Your task to perform on an android device: turn off notifications settings in the gmail app Image 0: 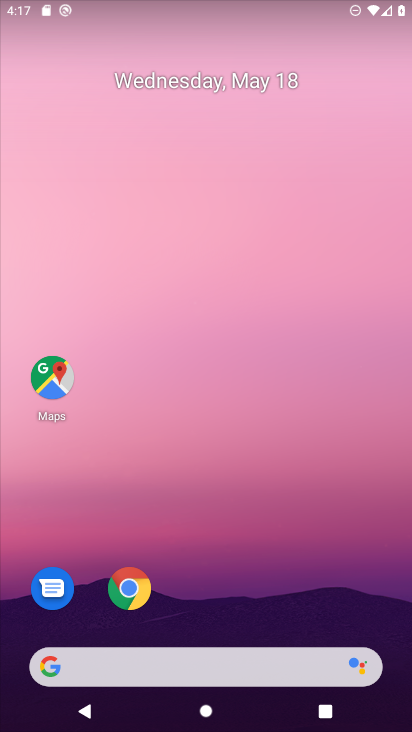
Step 0: drag from (281, 624) to (290, 155)
Your task to perform on an android device: turn off notifications settings in the gmail app Image 1: 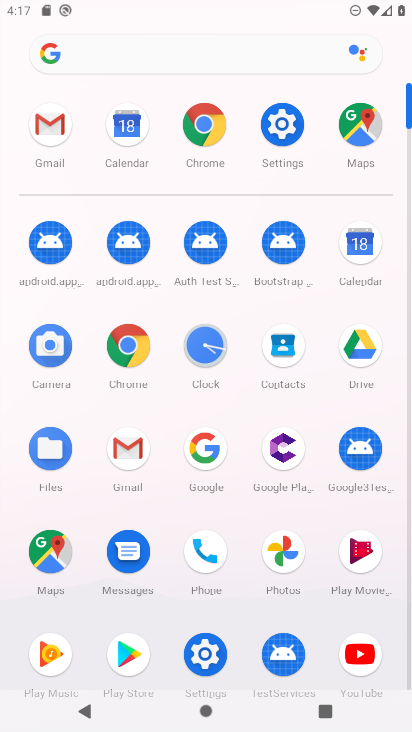
Step 1: click (50, 141)
Your task to perform on an android device: turn off notifications settings in the gmail app Image 2: 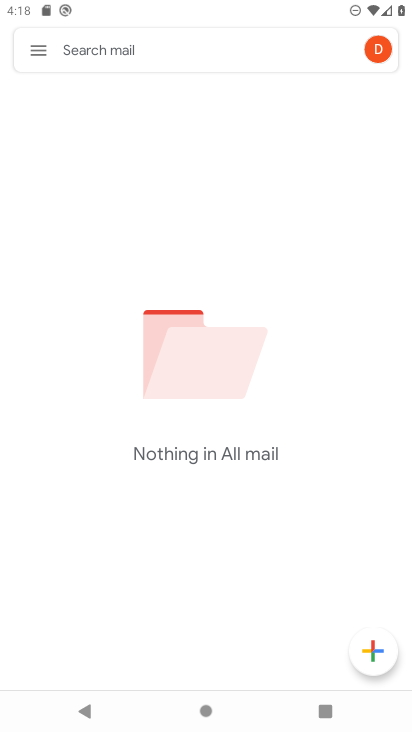
Step 2: click (34, 47)
Your task to perform on an android device: turn off notifications settings in the gmail app Image 3: 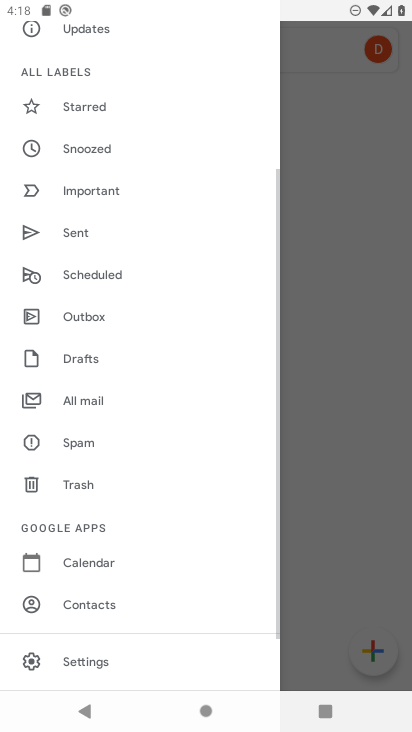
Step 3: click (91, 659)
Your task to perform on an android device: turn off notifications settings in the gmail app Image 4: 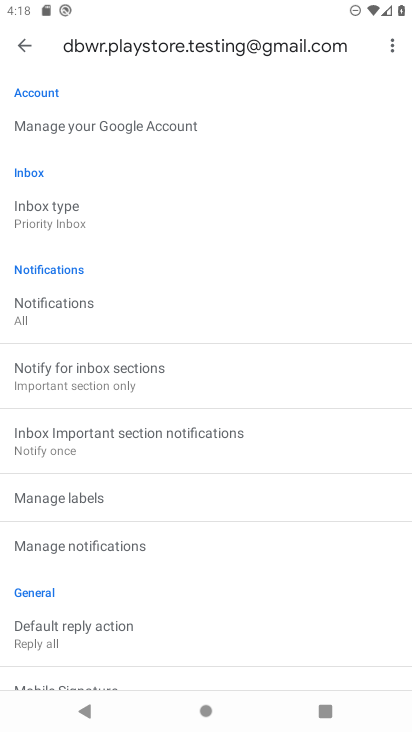
Step 4: click (122, 326)
Your task to perform on an android device: turn off notifications settings in the gmail app Image 5: 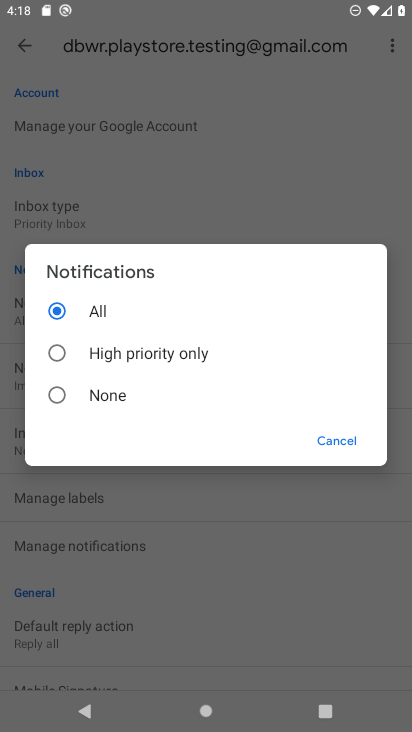
Step 5: click (318, 418)
Your task to perform on an android device: turn off notifications settings in the gmail app Image 6: 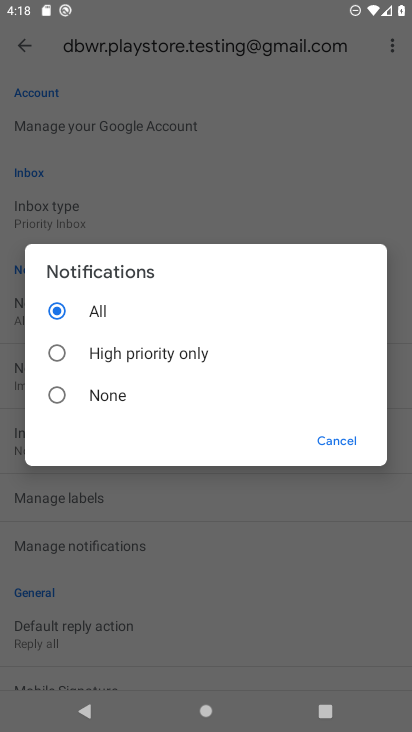
Step 6: click (153, 547)
Your task to perform on an android device: turn off notifications settings in the gmail app Image 7: 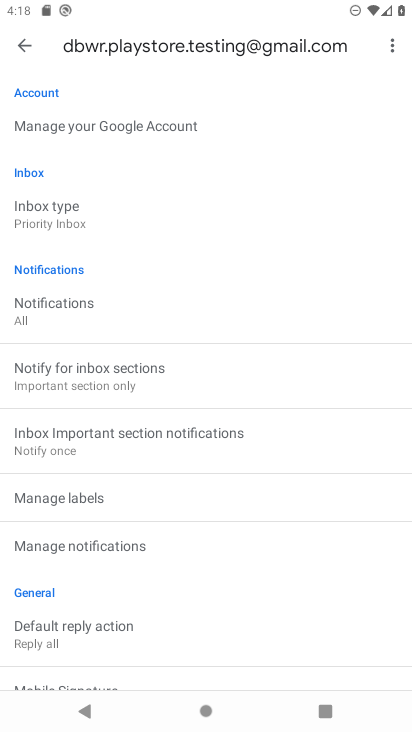
Step 7: click (153, 547)
Your task to perform on an android device: turn off notifications settings in the gmail app Image 8: 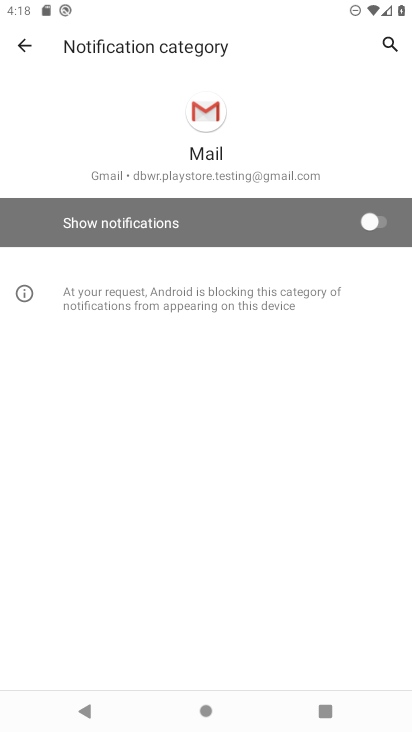
Step 8: click (344, 222)
Your task to perform on an android device: turn off notifications settings in the gmail app Image 9: 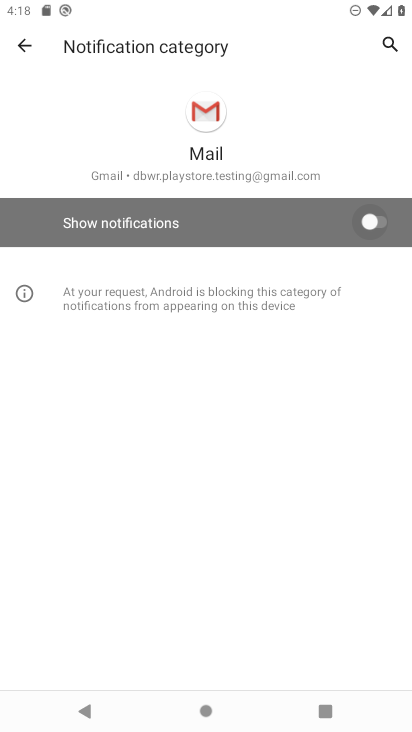
Step 9: click (344, 222)
Your task to perform on an android device: turn off notifications settings in the gmail app Image 10: 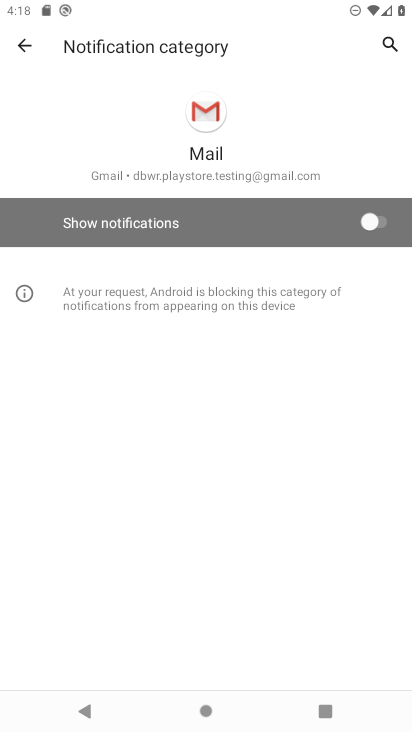
Step 10: task complete